Your task to perform on an android device: turn on priority inbox in the gmail app Image 0: 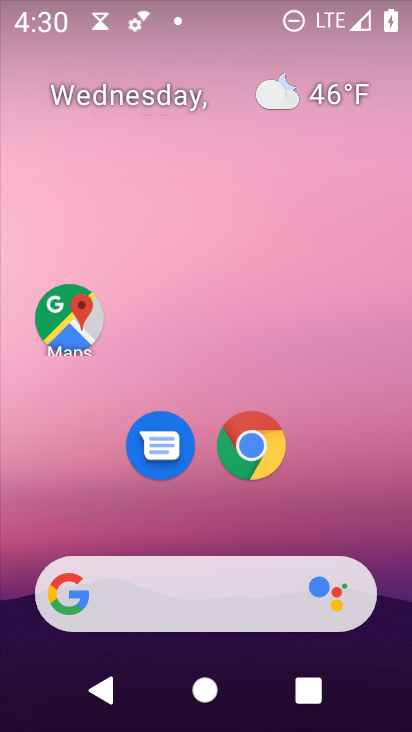
Step 0: drag from (277, 514) to (251, 41)
Your task to perform on an android device: turn on priority inbox in the gmail app Image 1: 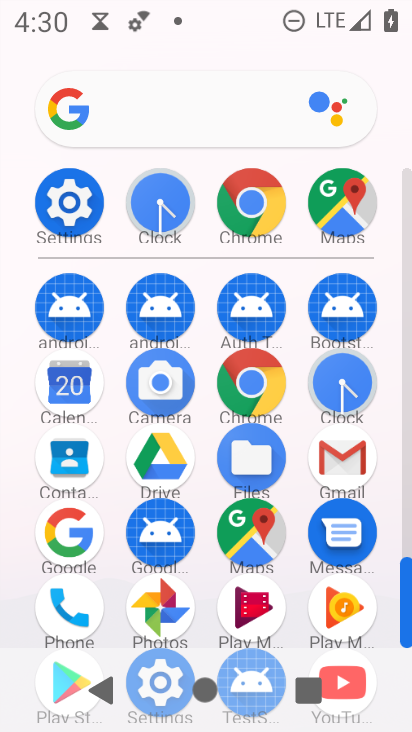
Step 1: click (347, 458)
Your task to perform on an android device: turn on priority inbox in the gmail app Image 2: 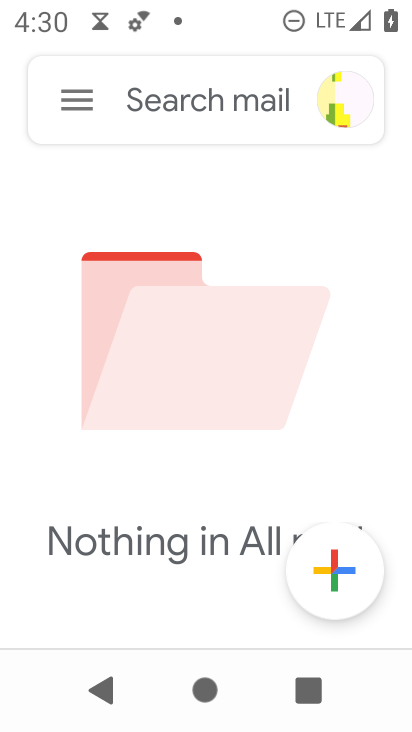
Step 2: click (82, 104)
Your task to perform on an android device: turn on priority inbox in the gmail app Image 3: 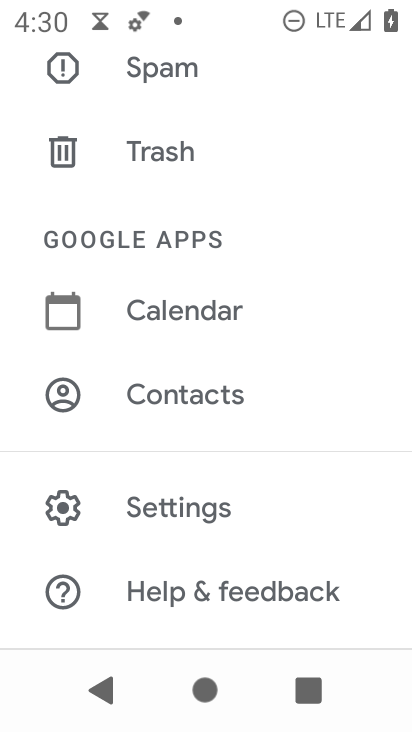
Step 3: click (168, 510)
Your task to perform on an android device: turn on priority inbox in the gmail app Image 4: 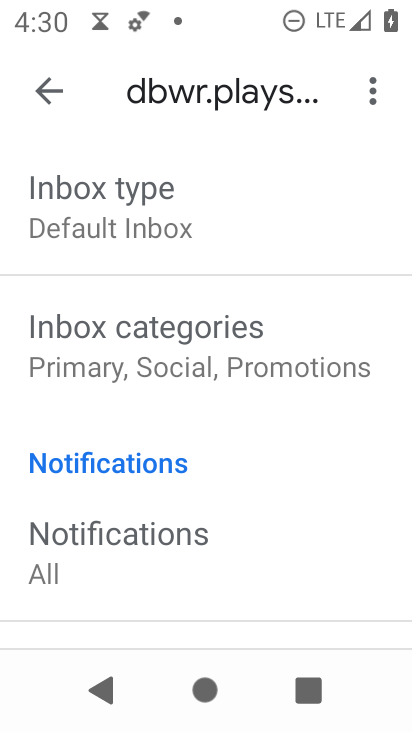
Step 4: click (165, 216)
Your task to perform on an android device: turn on priority inbox in the gmail app Image 5: 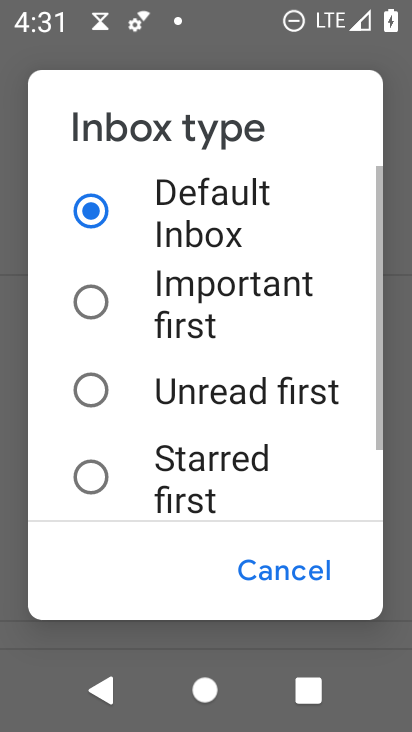
Step 5: drag from (207, 481) to (257, 298)
Your task to perform on an android device: turn on priority inbox in the gmail app Image 6: 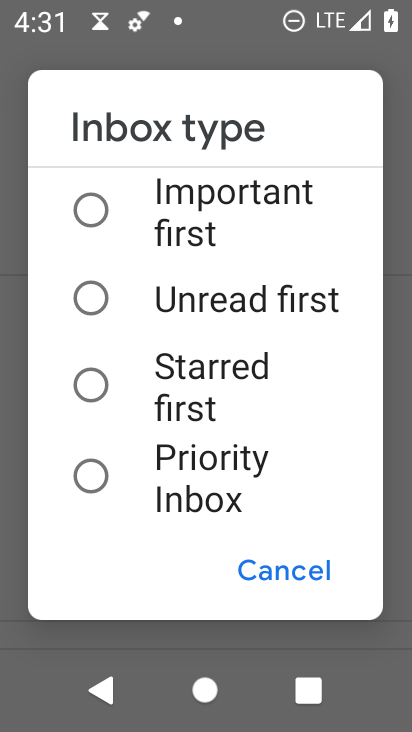
Step 6: click (106, 476)
Your task to perform on an android device: turn on priority inbox in the gmail app Image 7: 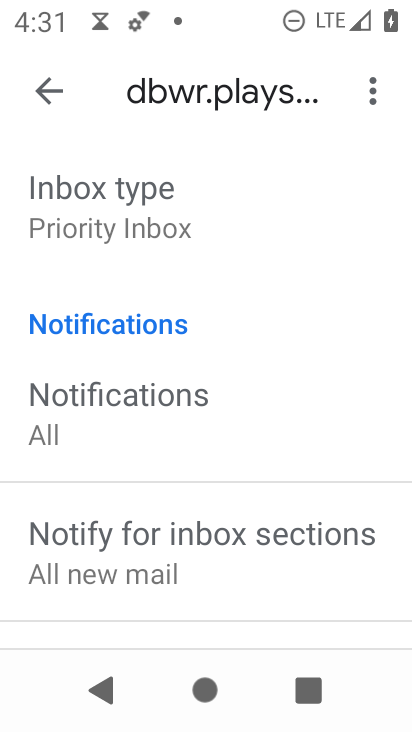
Step 7: task complete